Your task to perform on an android device: check android version Image 0: 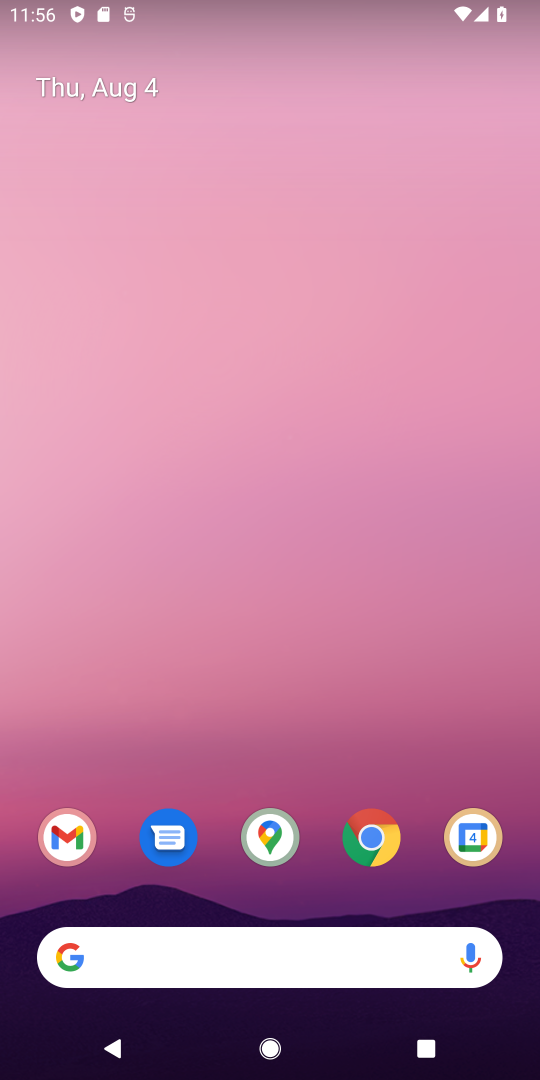
Step 0: drag from (290, 721) to (200, 90)
Your task to perform on an android device: check android version Image 1: 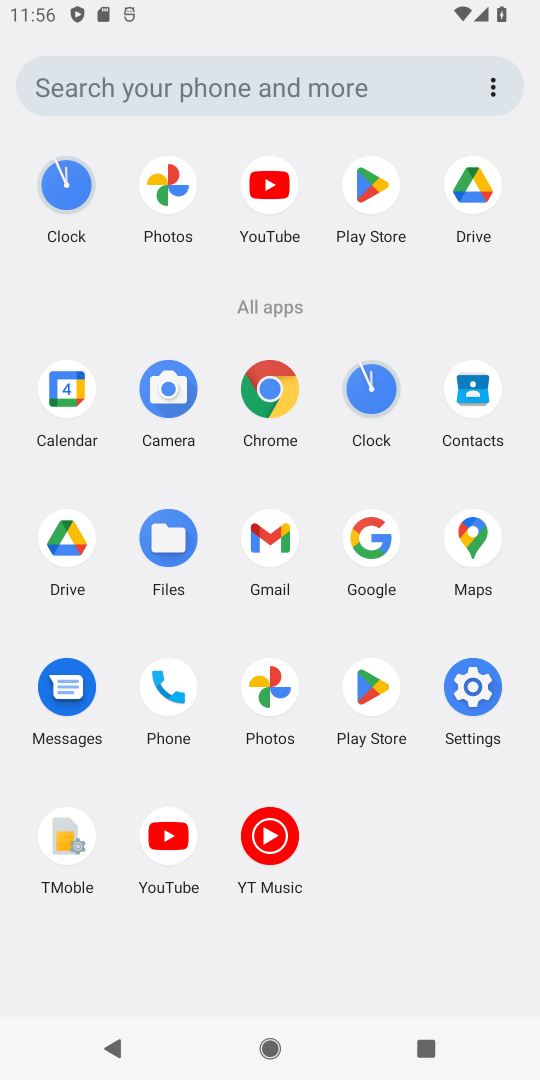
Step 1: click (472, 689)
Your task to perform on an android device: check android version Image 2: 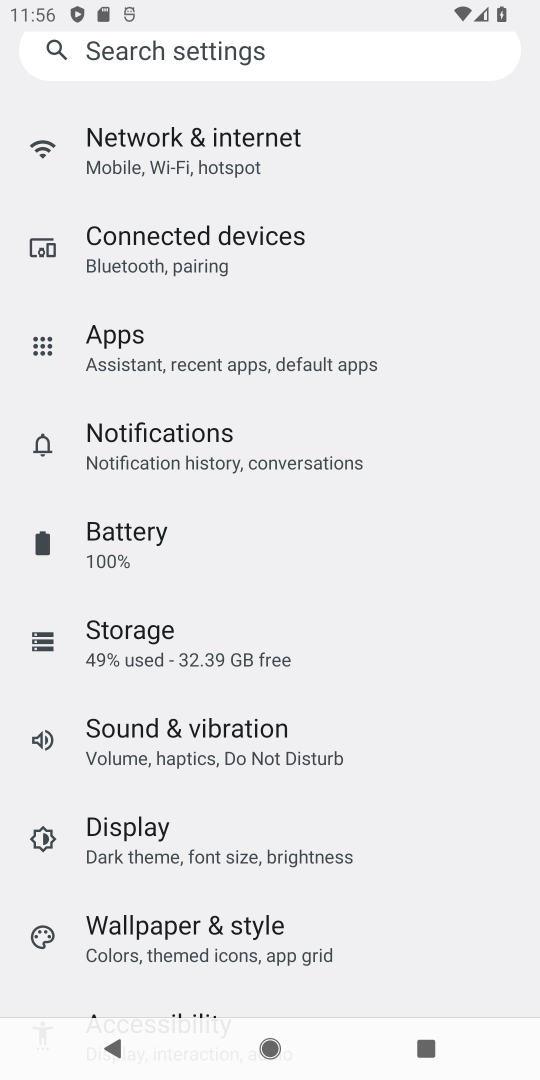
Step 2: drag from (250, 782) to (160, 216)
Your task to perform on an android device: check android version Image 3: 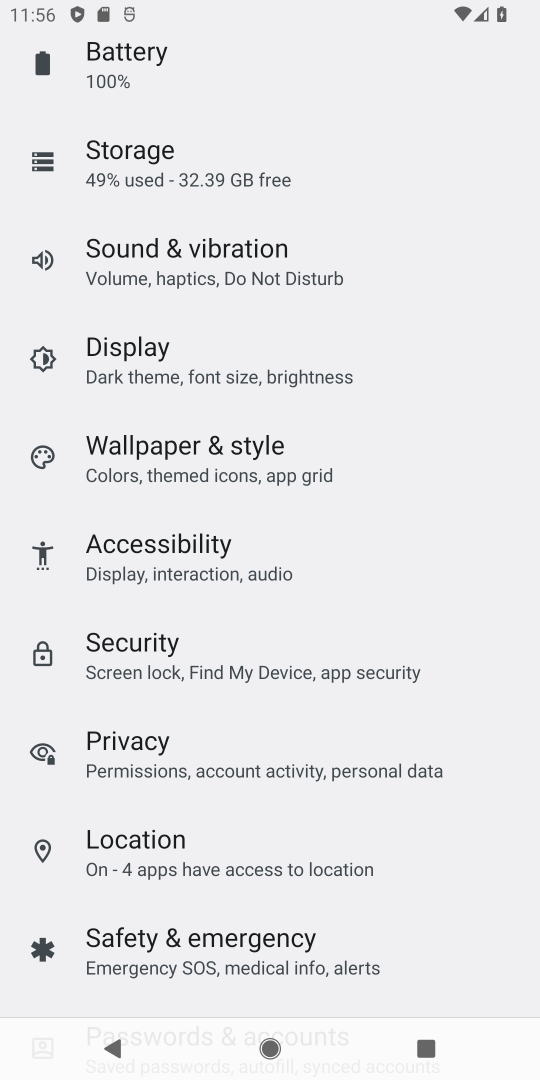
Step 3: drag from (215, 785) to (171, 98)
Your task to perform on an android device: check android version Image 4: 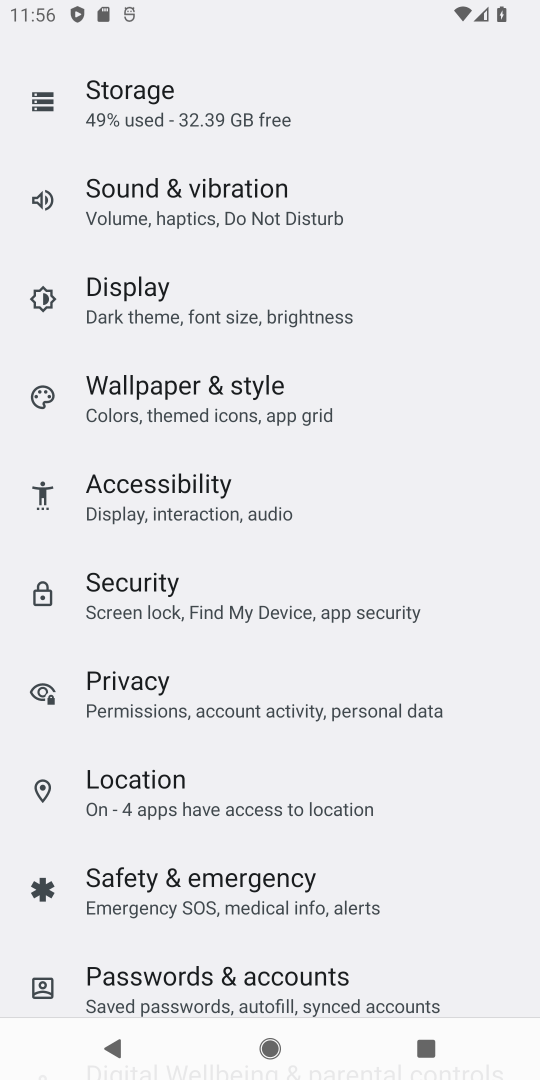
Step 4: drag from (170, 913) to (116, 266)
Your task to perform on an android device: check android version Image 5: 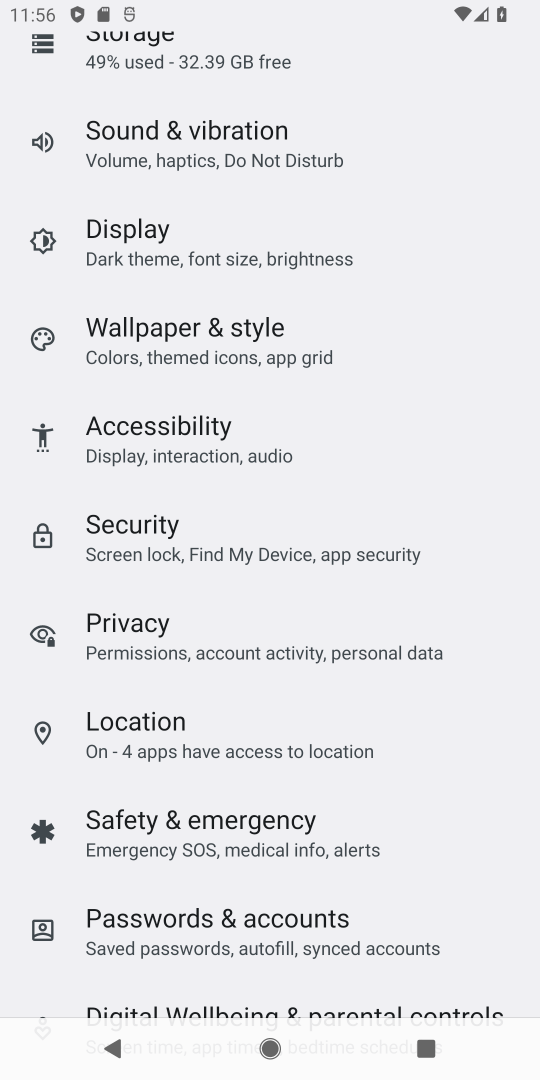
Step 5: drag from (179, 860) to (174, 514)
Your task to perform on an android device: check android version Image 6: 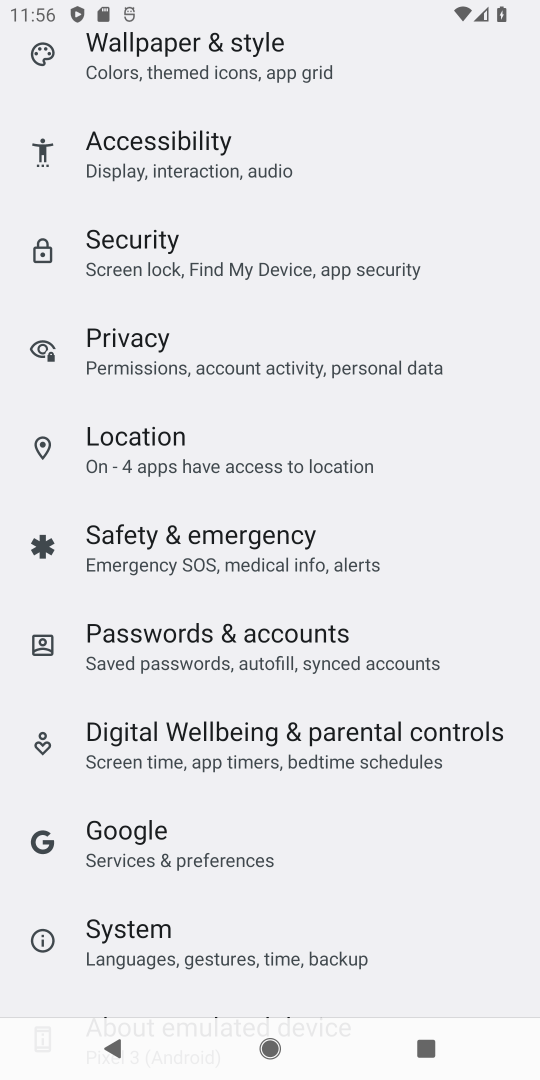
Step 6: drag from (231, 971) to (231, 303)
Your task to perform on an android device: check android version Image 7: 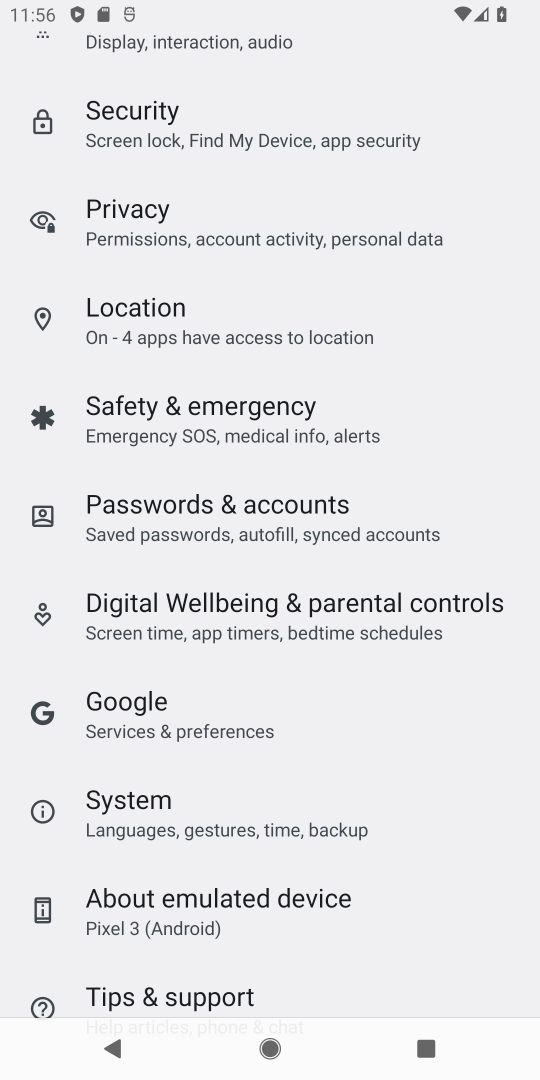
Step 7: click (262, 919)
Your task to perform on an android device: check android version Image 8: 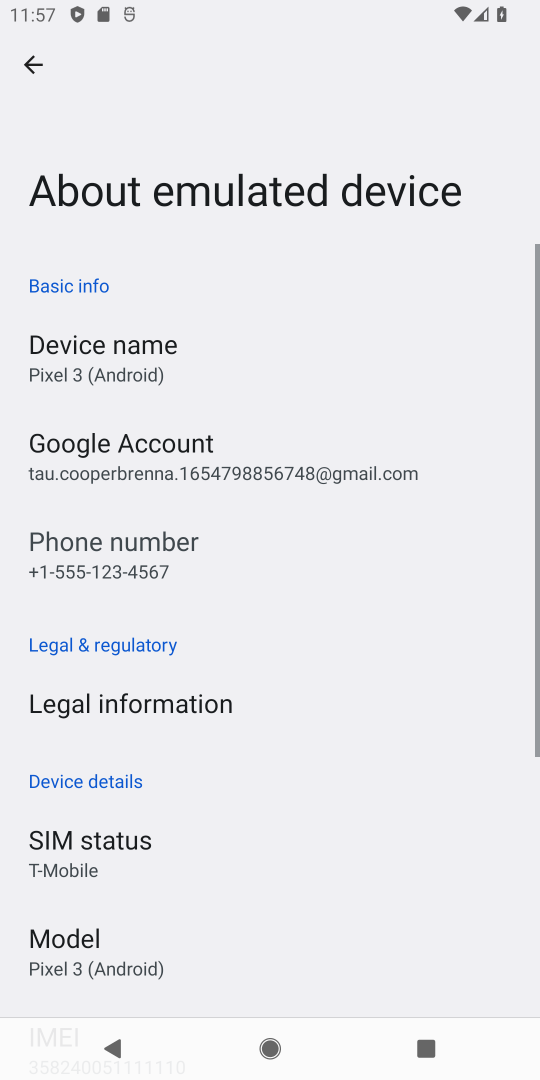
Step 8: drag from (163, 958) to (141, 213)
Your task to perform on an android device: check android version Image 9: 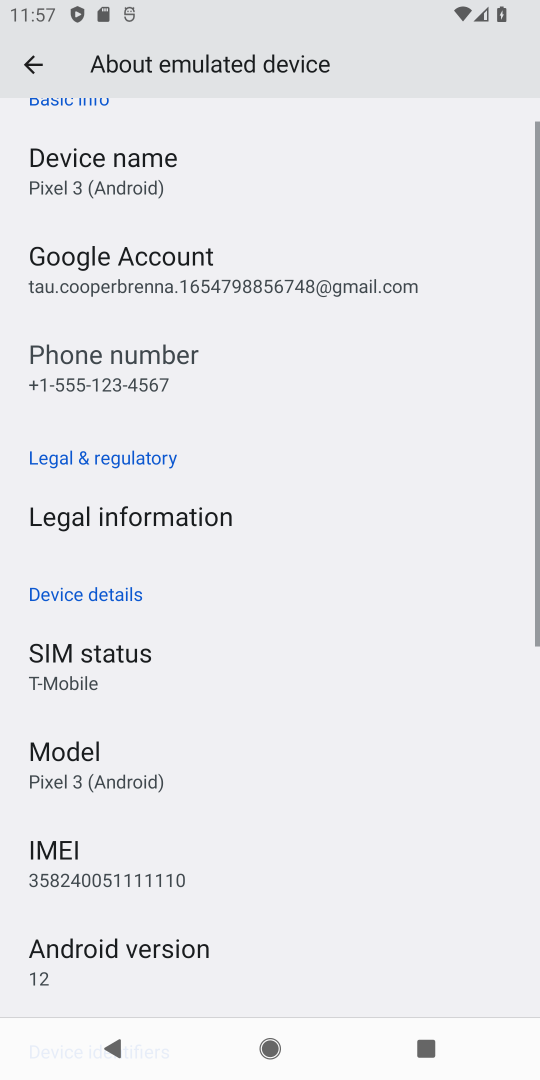
Step 9: click (91, 938)
Your task to perform on an android device: check android version Image 10: 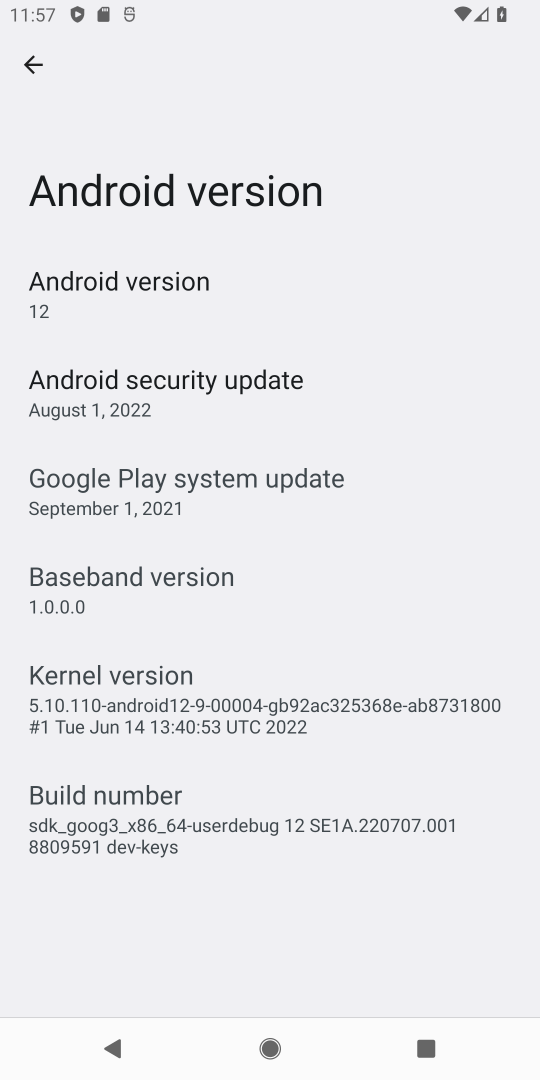
Step 10: task complete